Your task to perform on an android device: Open Yahoo.com Image 0: 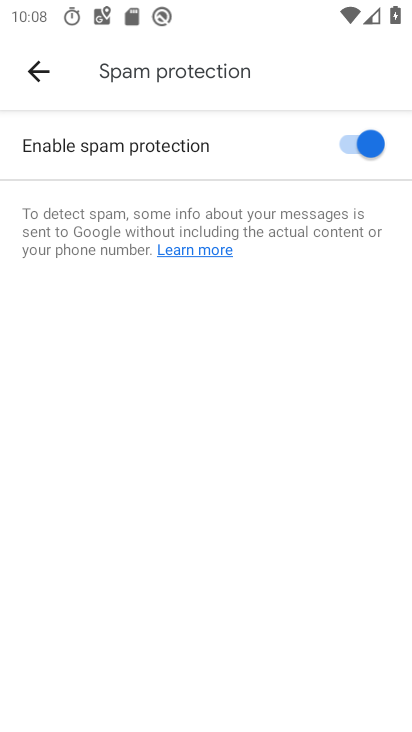
Step 0: press home button
Your task to perform on an android device: Open Yahoo.com Image 1: 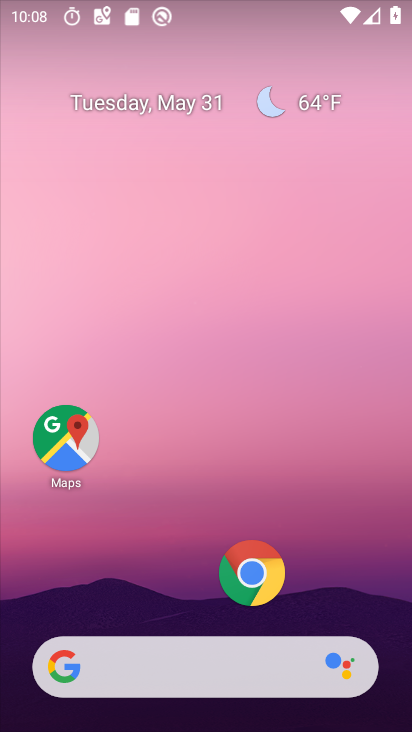
Step 1: click (249, 574)
Your task to perform on an android device: Open Yahoo.com Image 2: 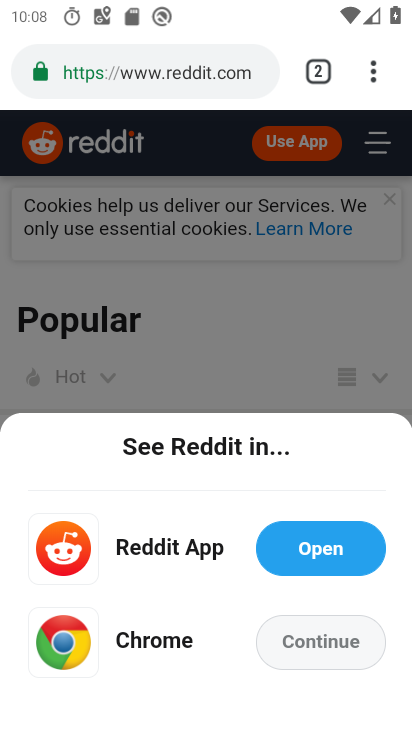
Step 2: click (322, 76)
Your task to perform on an android device: Open Yahoo.com Image 3: 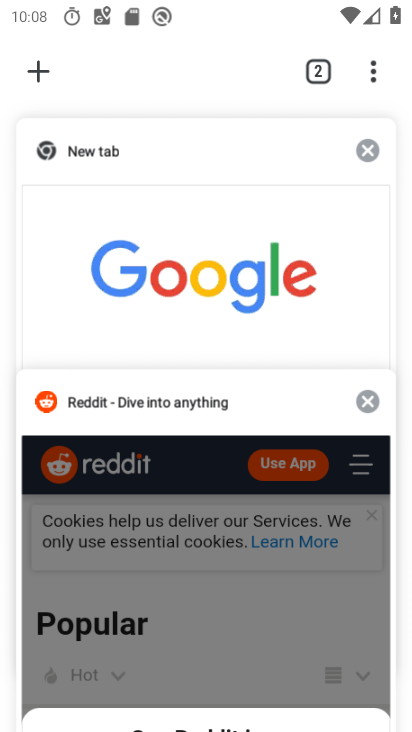
Step 3: click (140, 171)
Your task to perform on an android device: Open Yahoo.com Image 4: 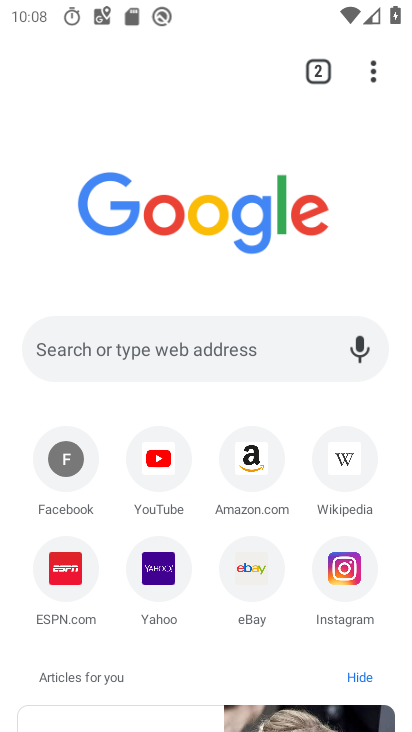
Step 4: click (160, 570)
Your task to perform on an android device: Open Yahoo.com Image 5: 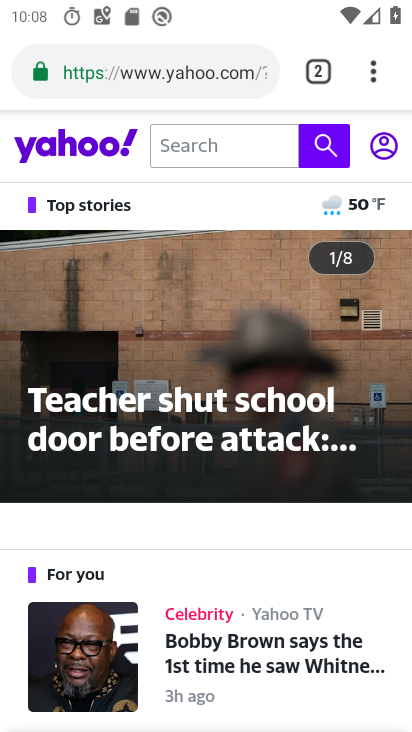
Step 5: task complete